Your task to perform on an android device: Open Chrome and go to the settings page Image 0: 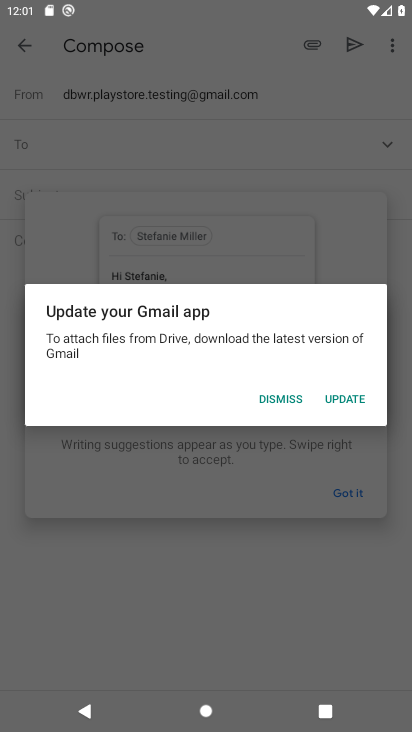
Step 0: press home button
Your task to perform on an android device: Open Chrome and go to the settings page Image 1: 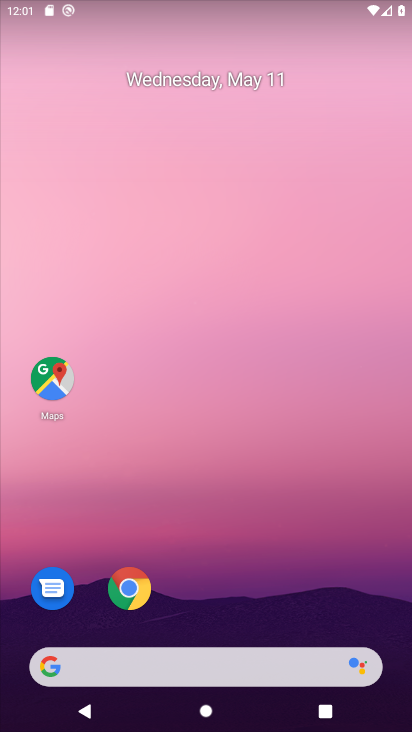
Step 1: click (126, 592)
Your task to perform on an android device: Open Chrome and go to the settings page Image 2: 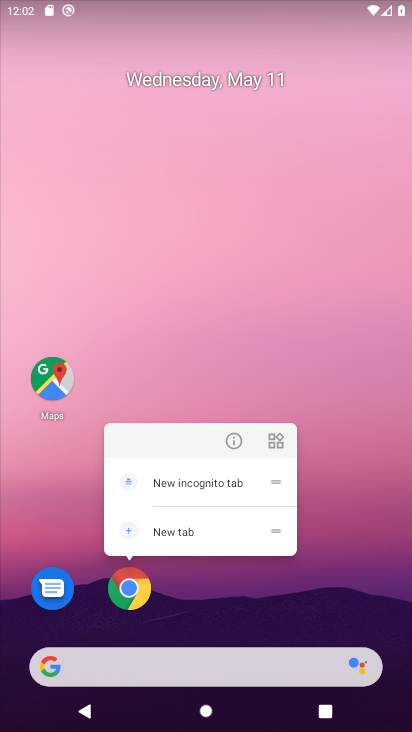
Step 2: click (125, 589)
Your task to perform on an android device: Open Chrome and go to the settings page Image 3: 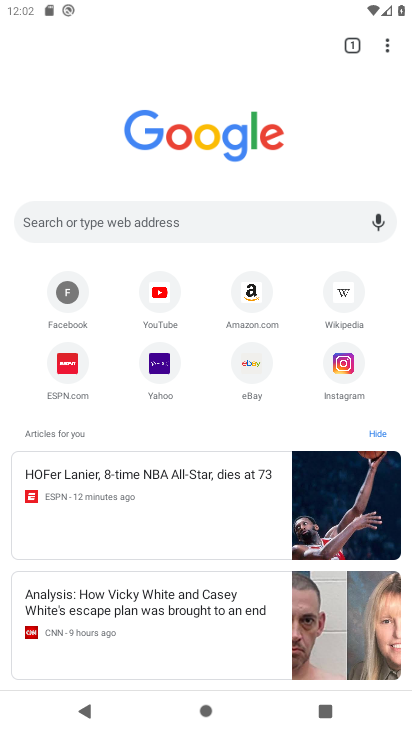
Step 3: click (384, 36)
Your task to perform on an android device: Open Chrome and go to the settings page Image 4: 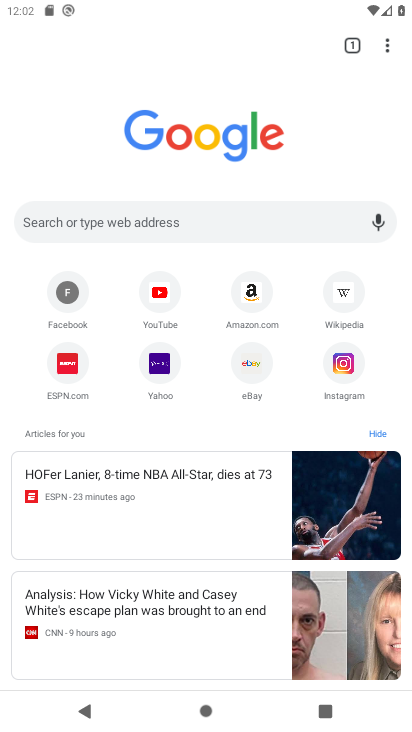
Step 4: click (386, 38)
Your task to perform on an android device: Open Chrome and go to the settings page Image 5: 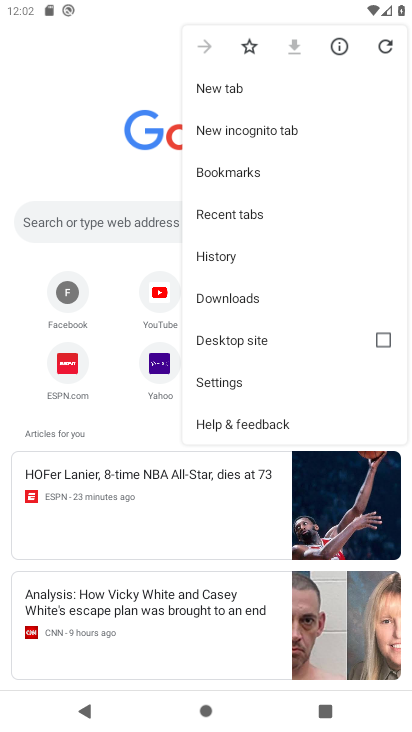
Step 5: click (243, 390)
Your task to perform on an android device: Open Chrome and go to the settings page Image 6: 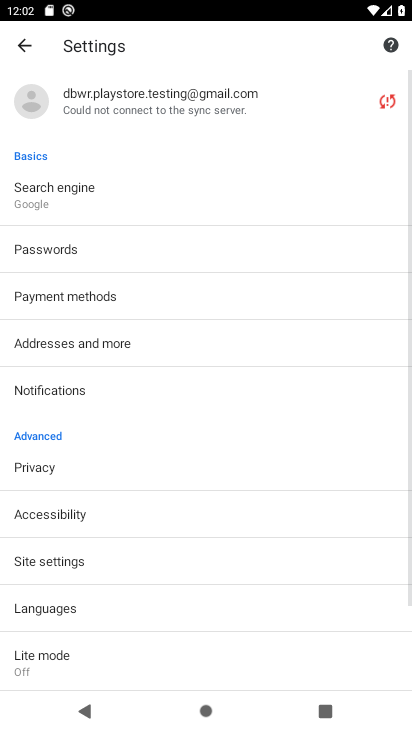
Step 6: task complete